Your task to perform on an android device: Find a good burger place on Maps Image 0: 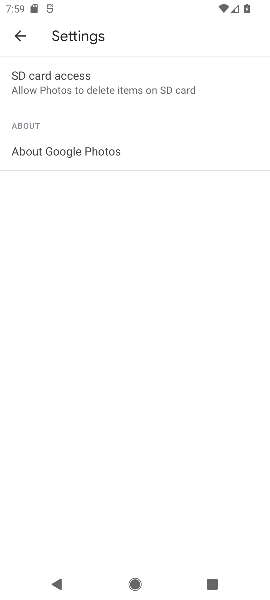
Step 0: press home button
Your task to perform on an android device: Find a good burger place on Maps Image 1: 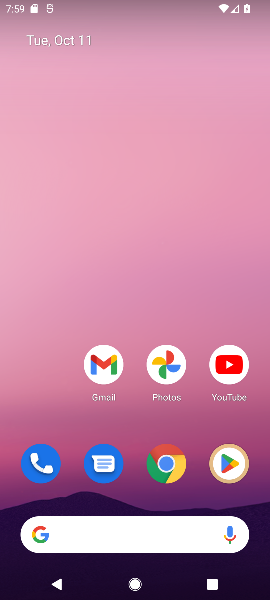
Step 1: drag from (121, 520) to (123, 147)
Your task to perform on an android device: Find a good burger place on Maps Image 2: 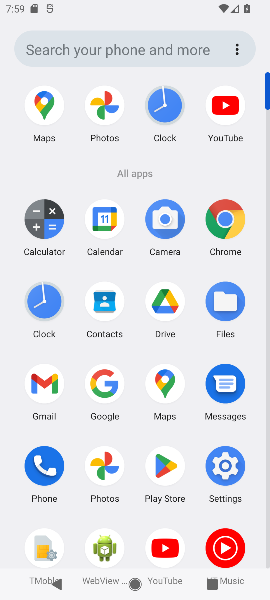
Step 2: click (158, 377)
Your task to perform on an android device: Find a good burger place on Maps Image 3: 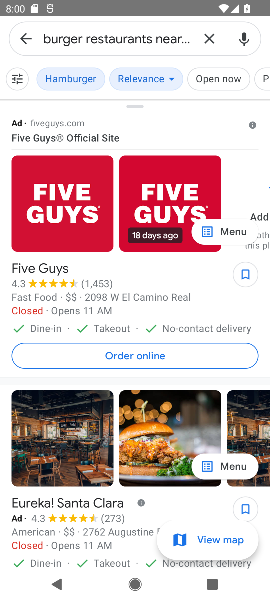
Step 3: task complete